Your task to perform on an android device: Show me popular videos on Youtube Image 0: 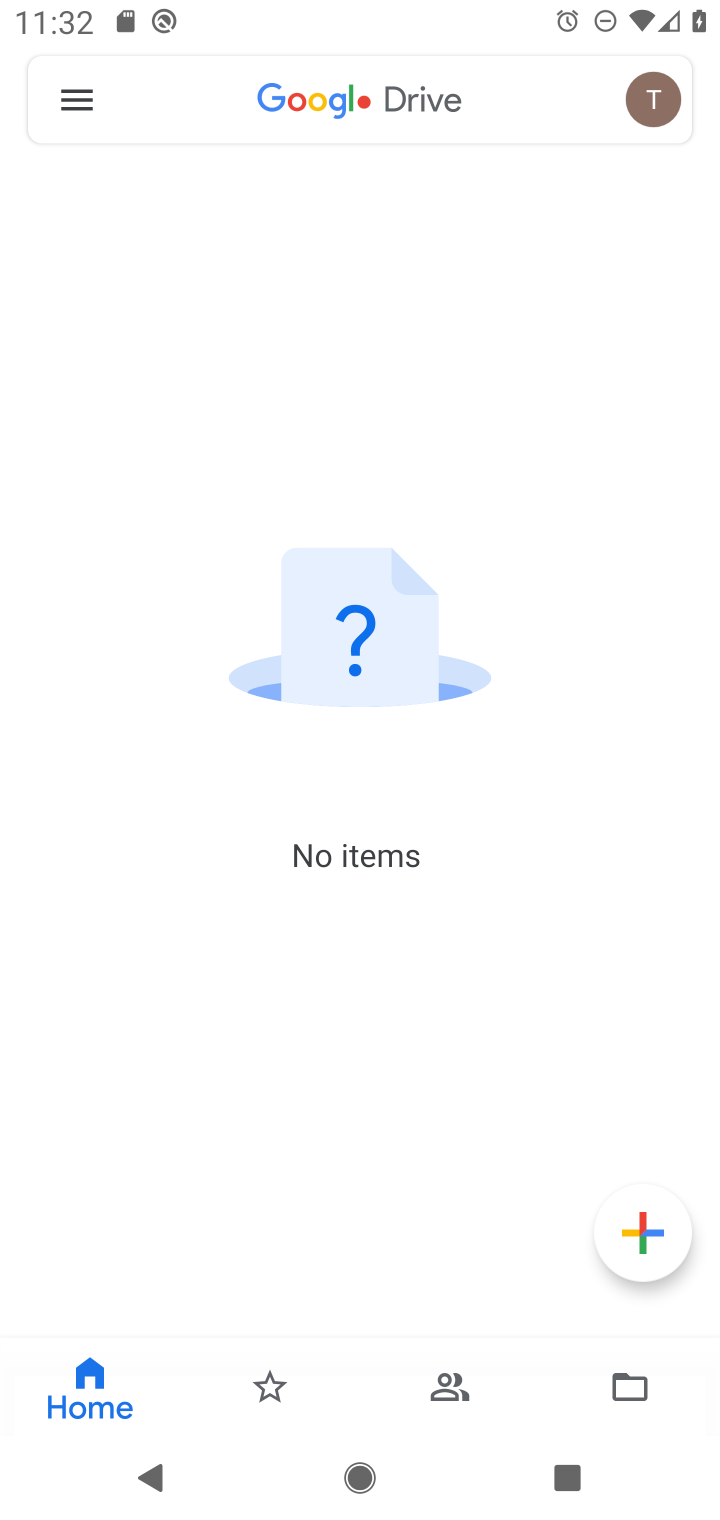
Step 0: press home button
Your task to perform on an android device: Show me popular videos on Youtube Image 1: 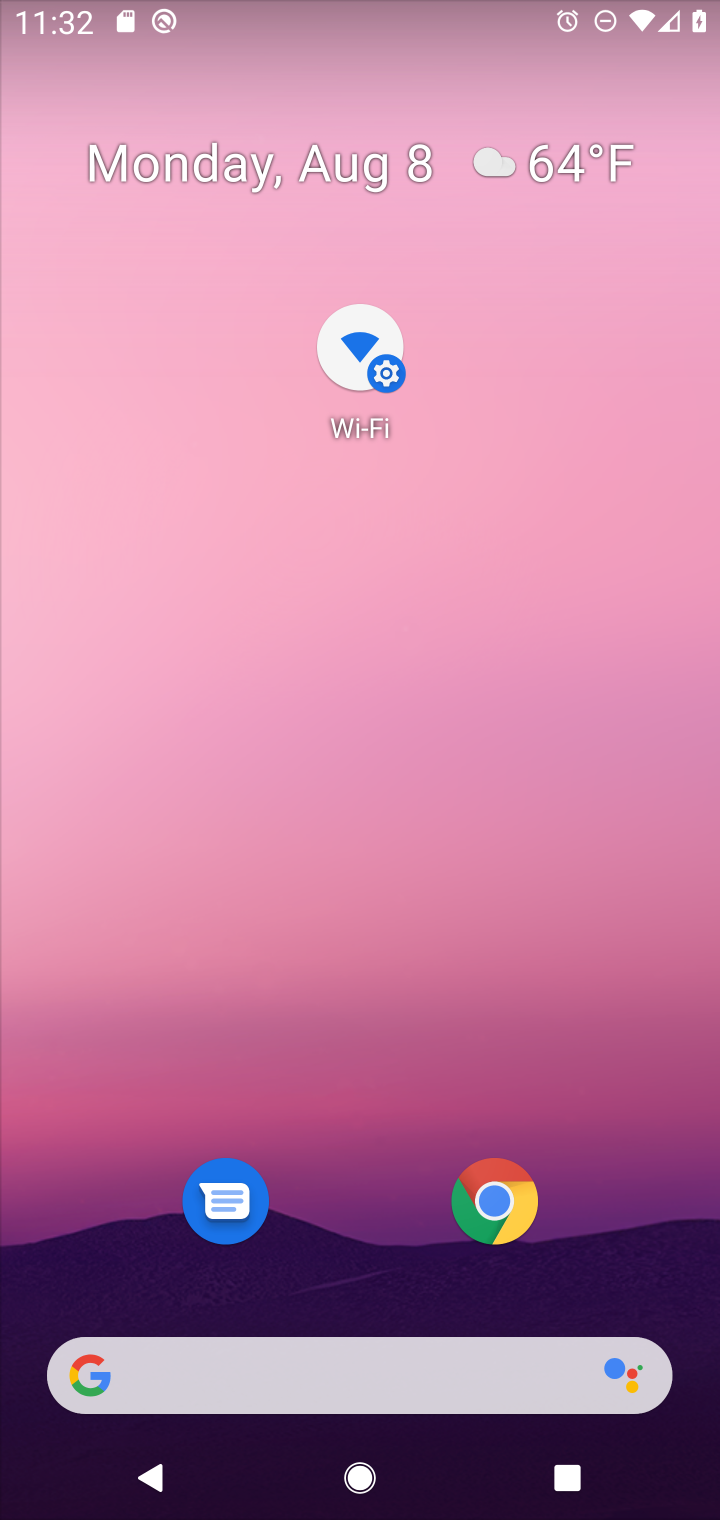
Step 1: drag from (379, 1161) to (510, 244)
Your task to perform on an android device: Show me popular videos on Youtube Image 2: 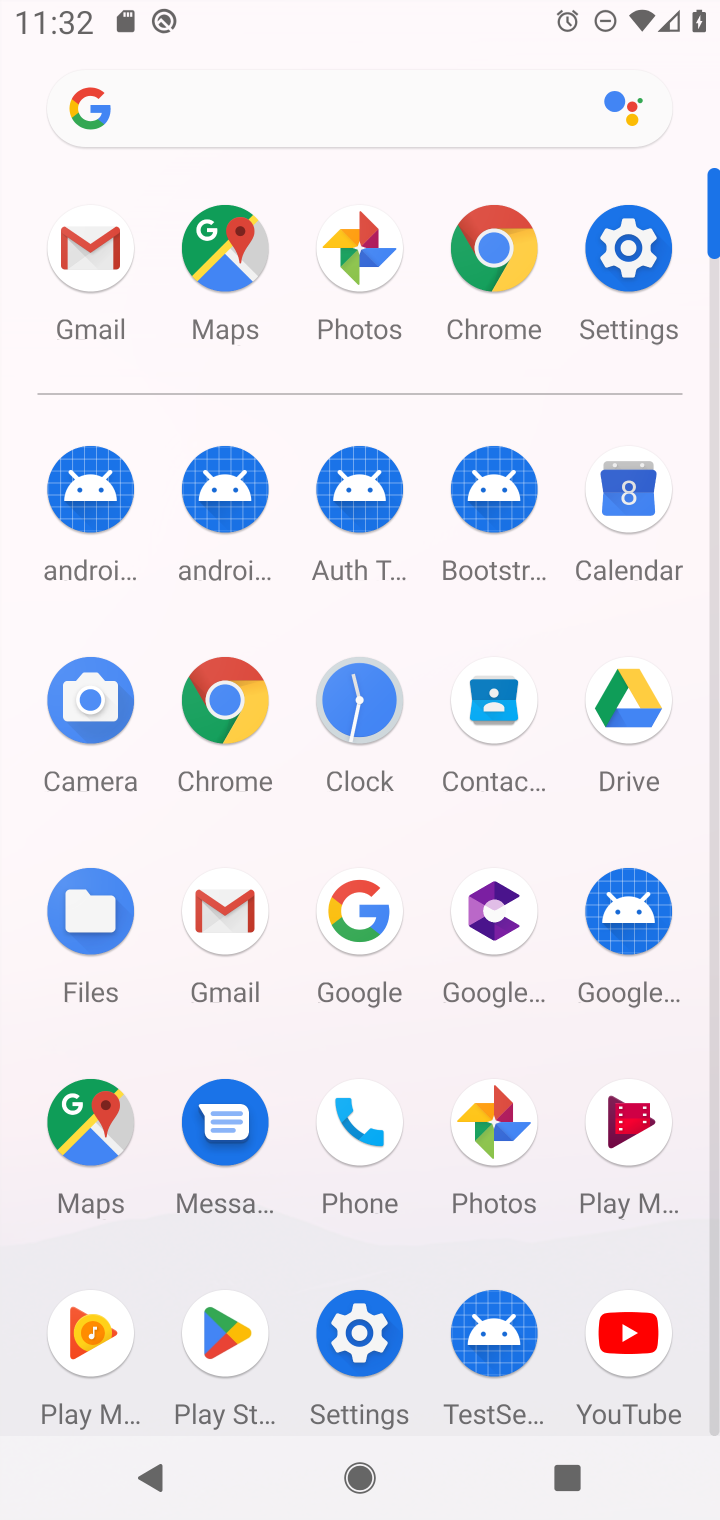
Step 2: click (622, 1335)
Your task to perform on an android device: Show me popular videos on Youtube Image 3: 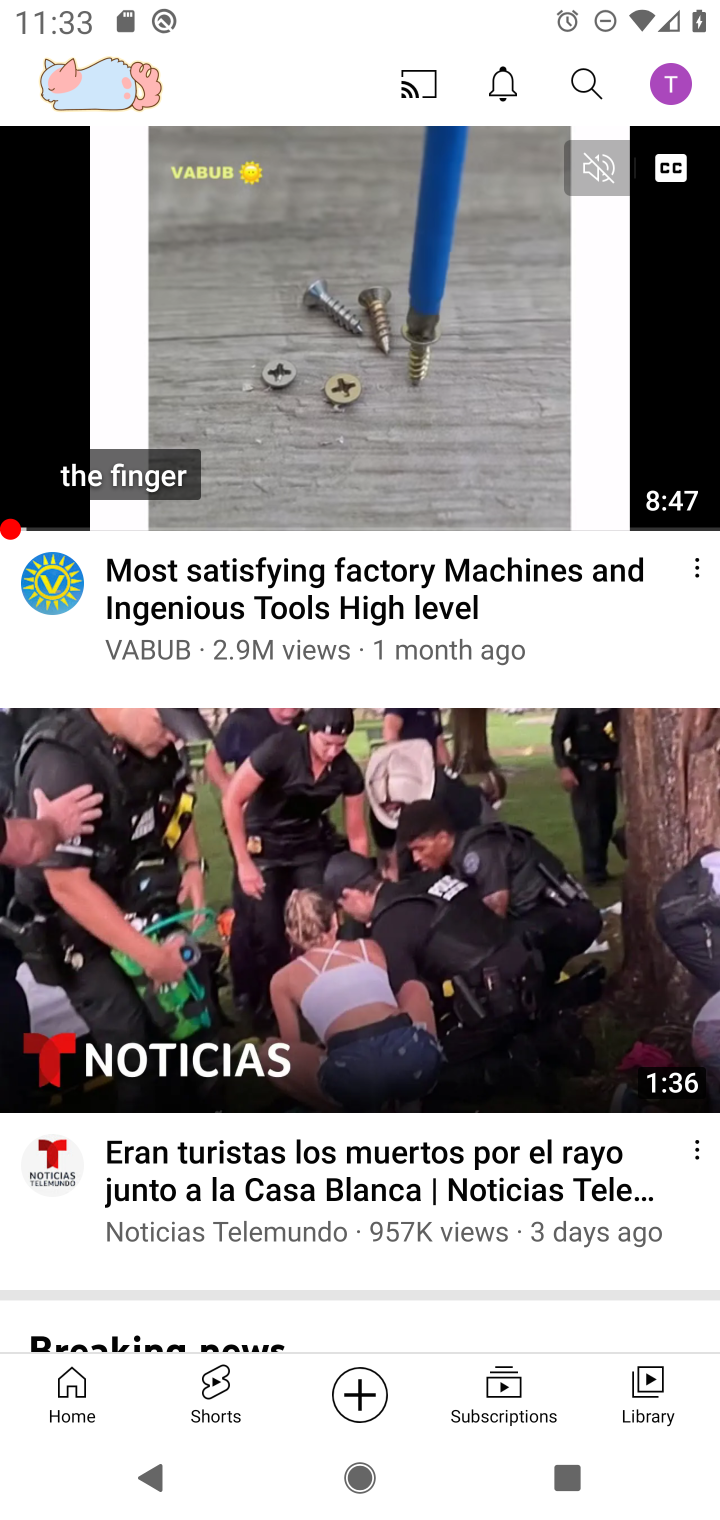
Step 3: task complete